Your task to perform on an android device: Open CNN.com Image 0: 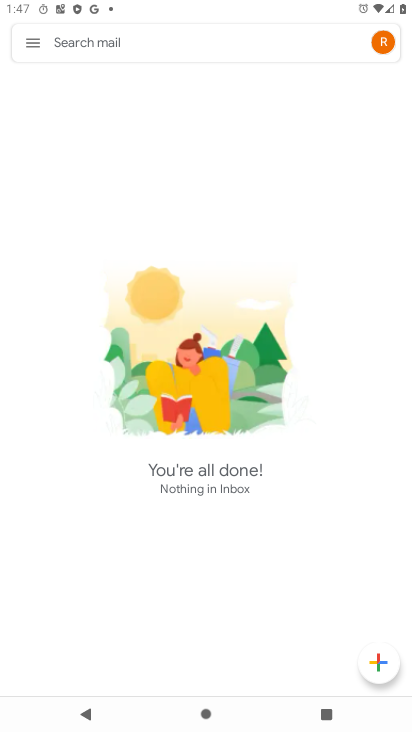
Step 0: press home button
Your task to perform on an android device: Open CNN.com Image 1: 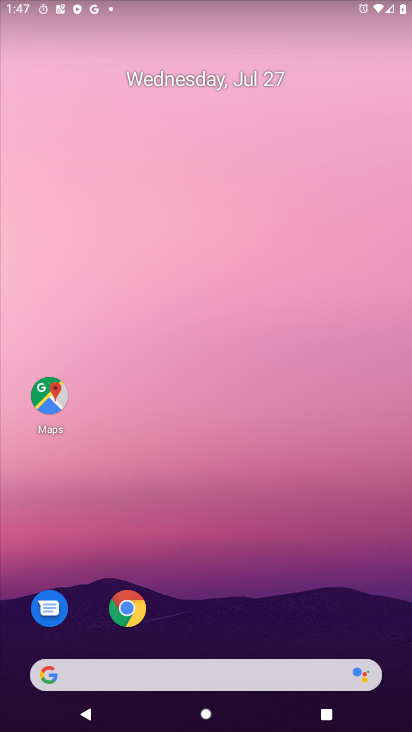
Step 1: click (126, 622)
Your task to perform on an android device: Open CNN.com Image 2: 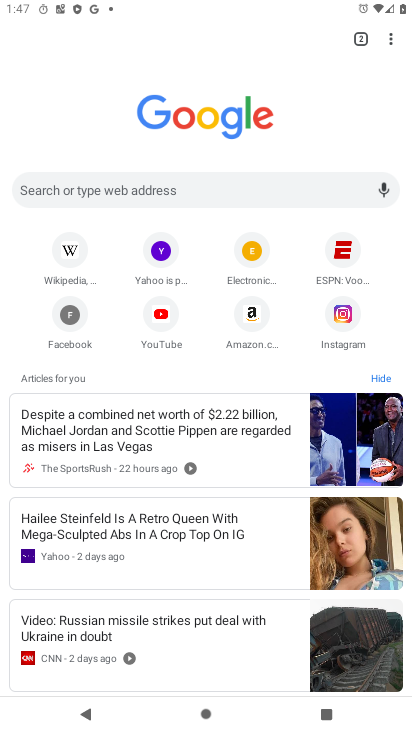
Step 2: click (228, 190)
Your task to perform on an android device: Open CNN.com Image 3: 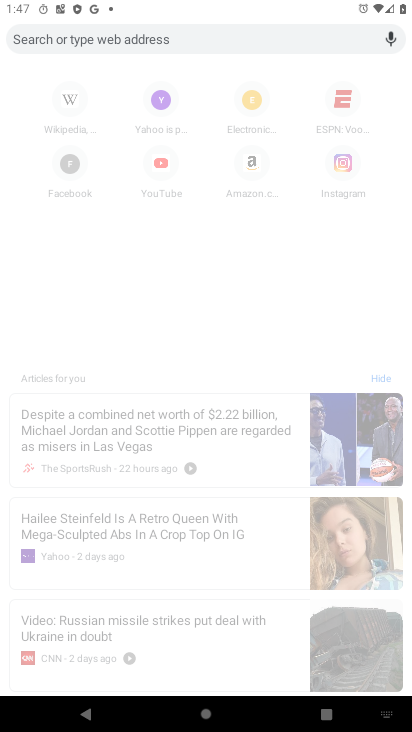
Step 3: type "www.cnn.com"
Your task to perform on an android device: Open CNN.com Image 4: 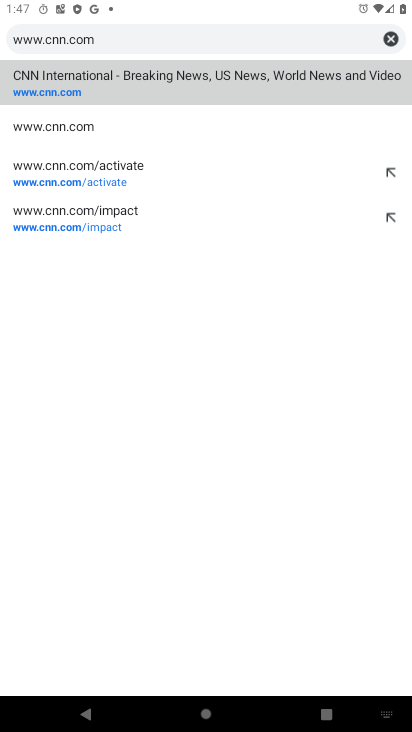
Step 4: click (74, 98)
Your task to perform on an android device: Open CNN.com Image 5: 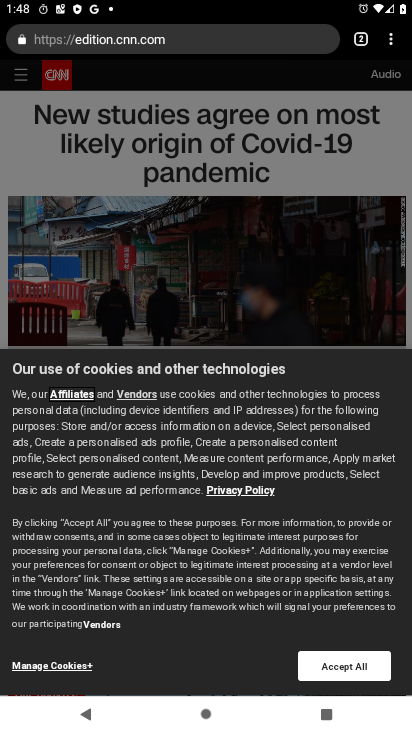
Step 5: task complete